Your task to perform on an android device: Go to Google maps Image 0: 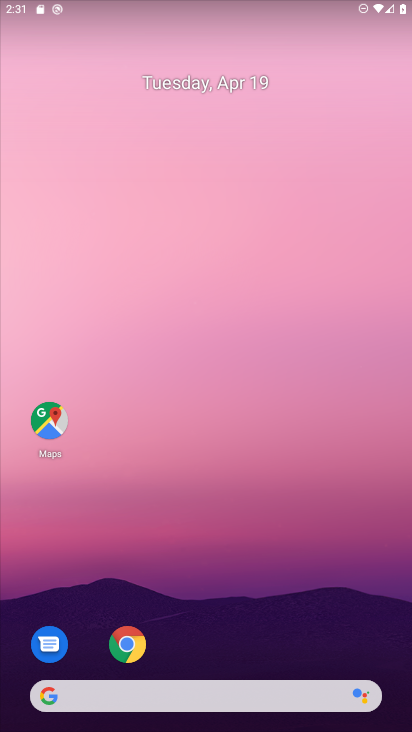
Step 0: click (48, 426)
Your task to perform on an android device: Go to Google maps Image 1: 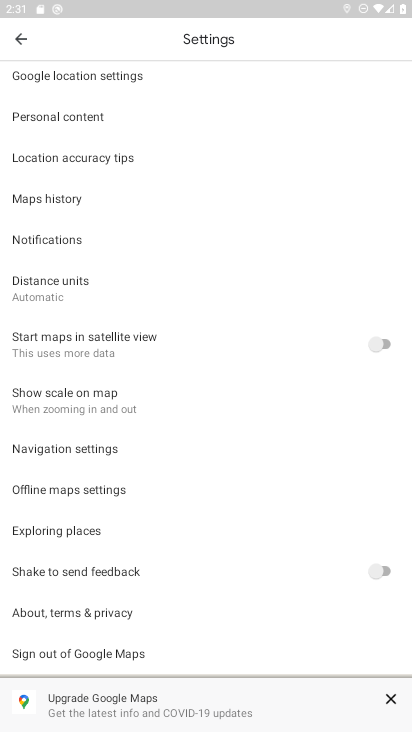
Step 1: task complete